Your task to perform on an android device: open chrome privacy settings Image 0: 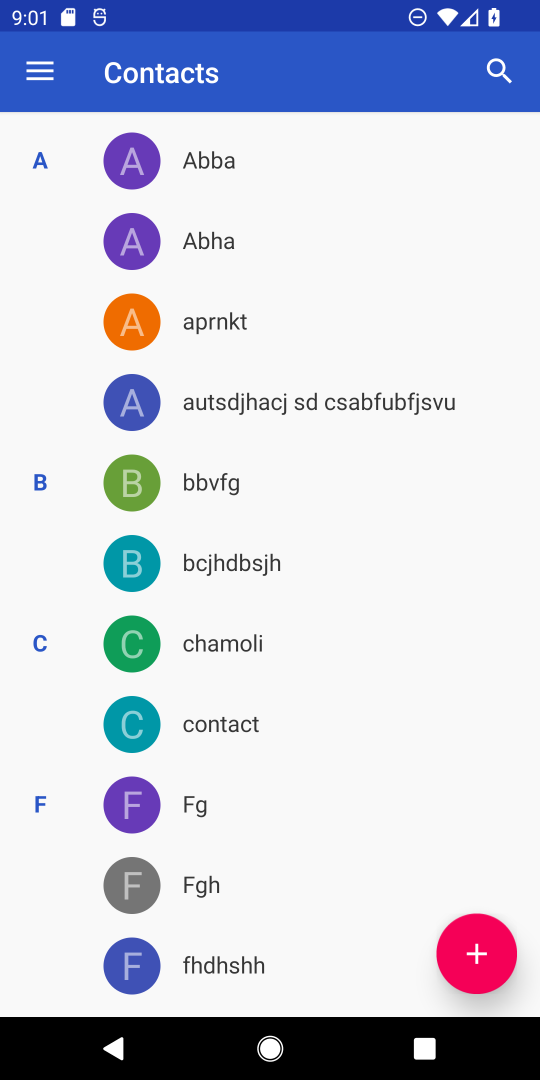
Step 0: press home button
Your task to perform on an android device: open chrome privacy settings Image 1: 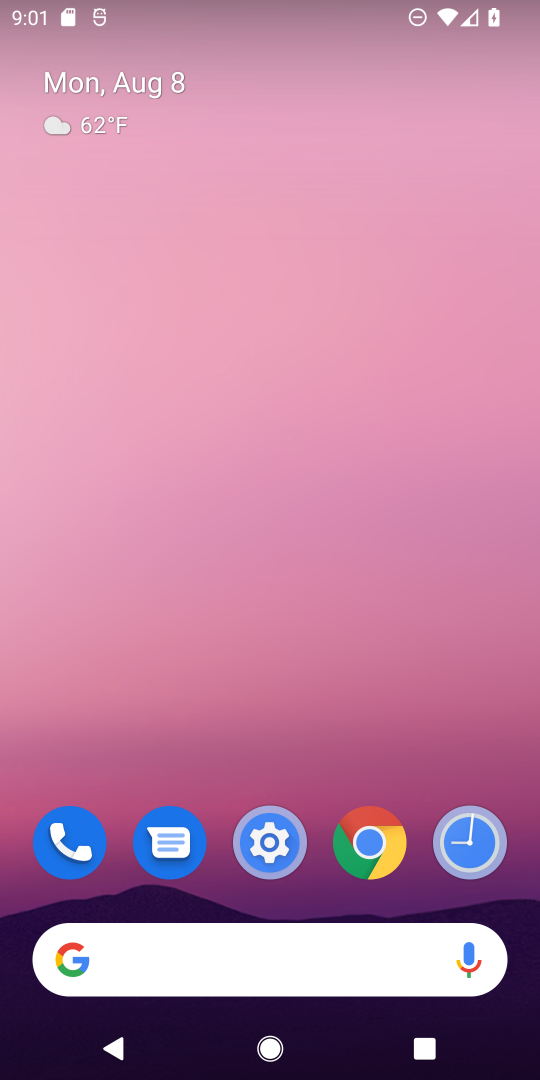
Step 1: click (376, 837)
Your task to perform on an android device: open chrome privacy settings Image 2: 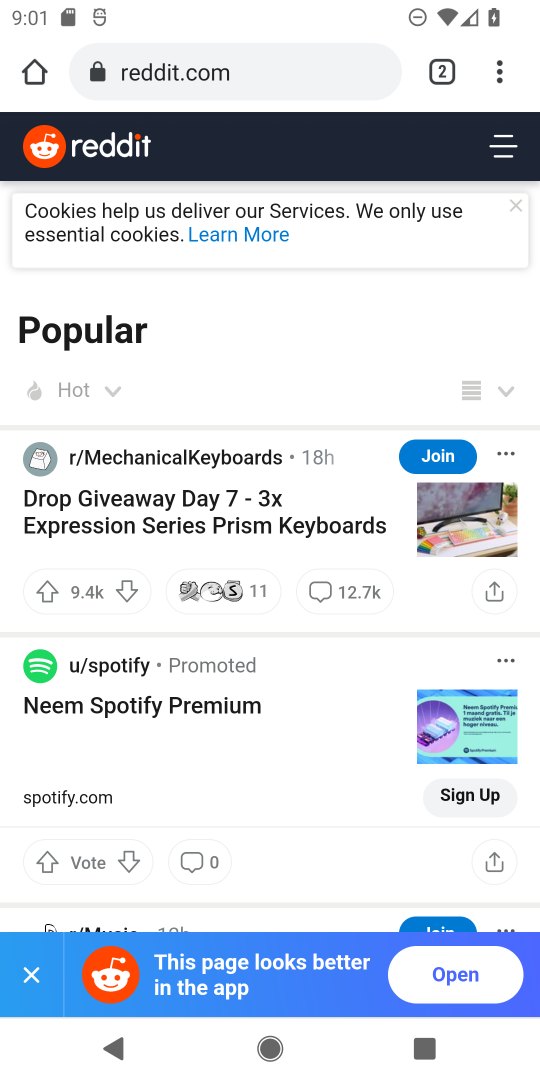
Step 2: click (497, 74)
Your task to perform on an android device: open chrome privacy settings Image 3: 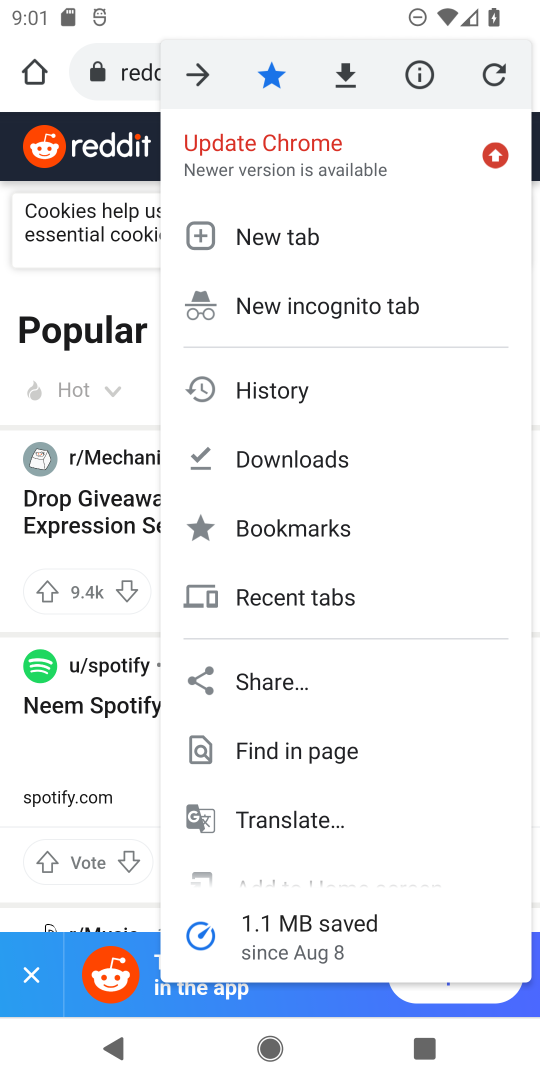
Step 3: drag from (347, 695) to (364, 169)
Your task to perform on an android device: open chrome privacy settings Image 4: 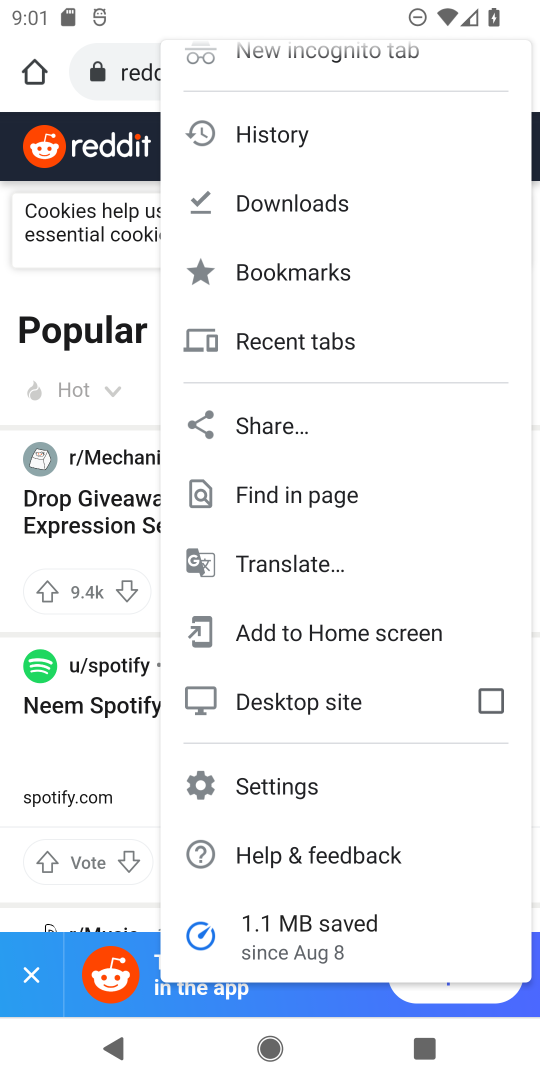
Step 4: click (310, 773)
Your task to perform on an android device: open chrome privacy settings Image 5: 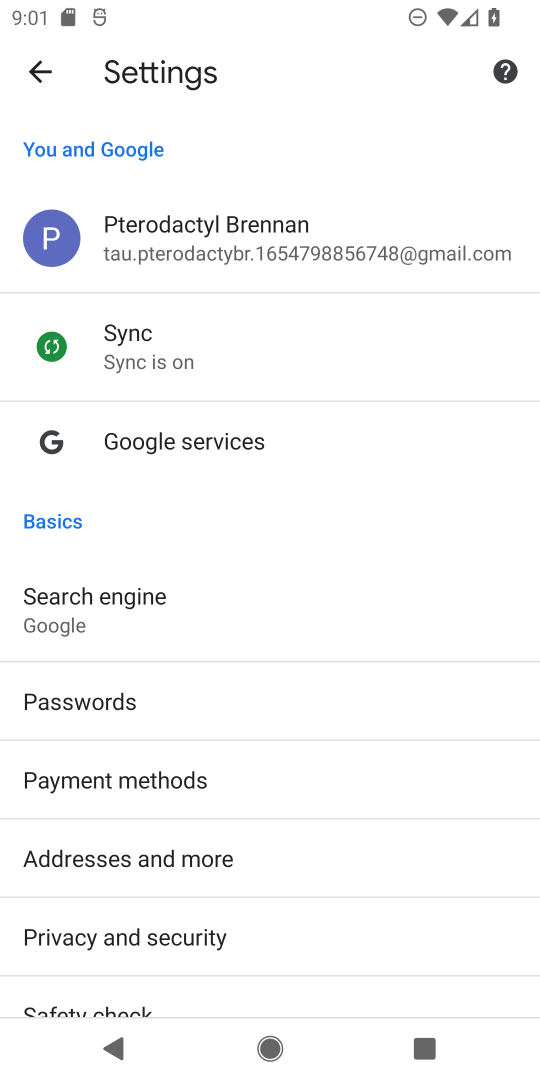
Step 5: click (211, 937)
Your task to perform on an android device: open chrome privacy settings Image 6: 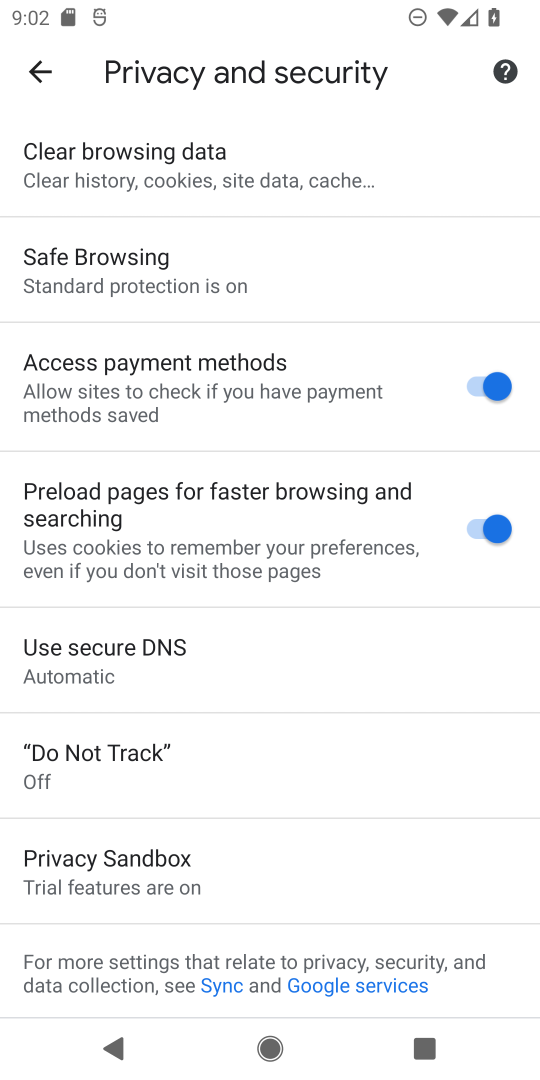
Step 6: task complete